Your task to perform on an android device: Open Maps and search for coffee Image 0: 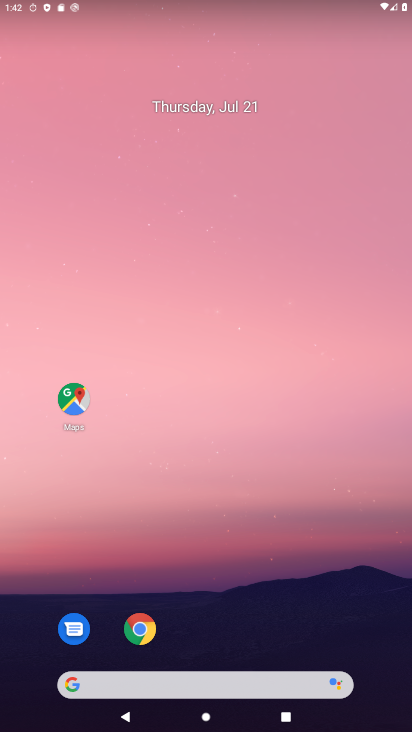
Step 0: click (223, 47)
Your task to perform on an android device: Open Maps and search for coffee Image 1: 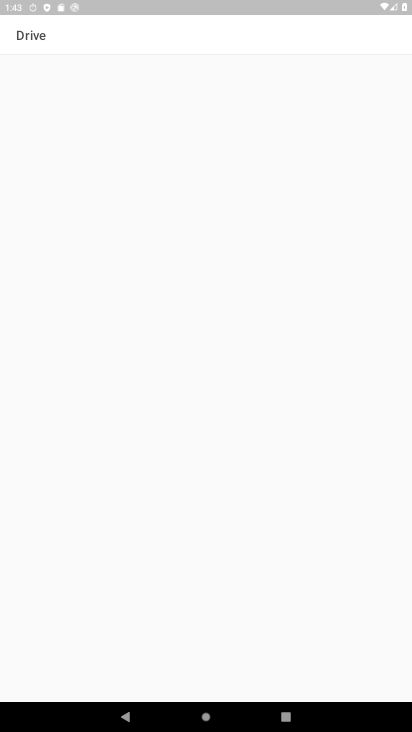
Step 1: drag from (13, 706) to (129, 241)
Your task to perform on an android device: Open Maps and search for coffee Image 2: 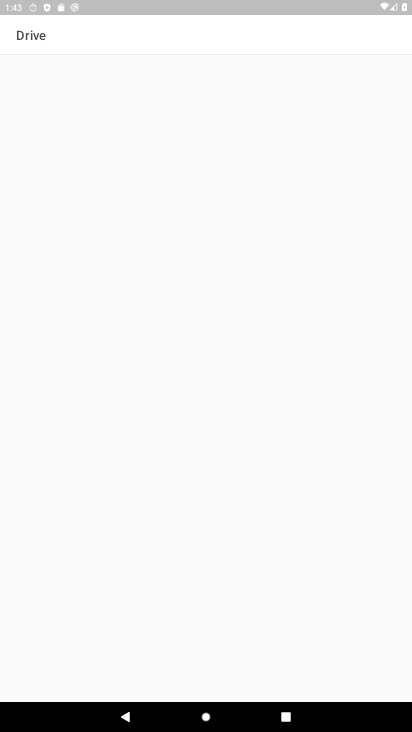
Step 2: press home button
Your task to perform on an android device: Open Maps and search for coffee Image 3: 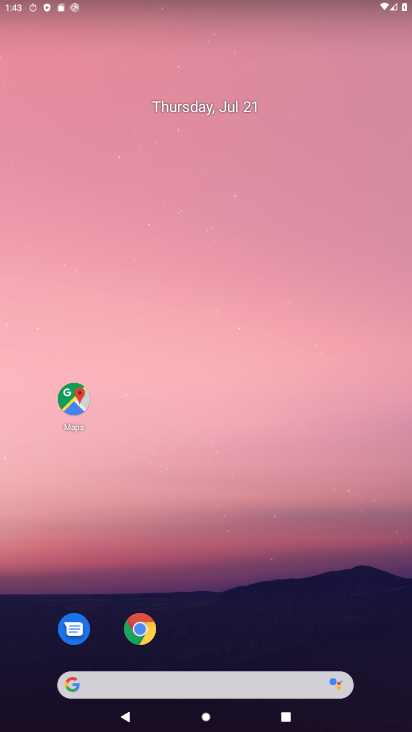
Step 3: click (66, 400)
Your task to perform on an android device: Open Maps and search for coffee Image 4: 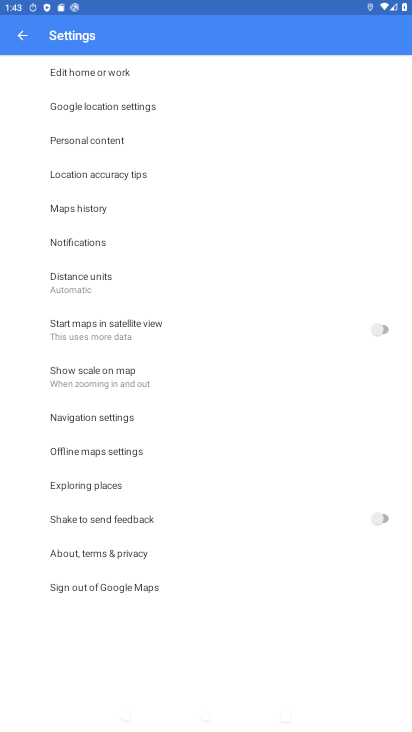
Step 4: click (16, 43)
Your task to perform on an android device: Open Maps and search for coffee Image 5: 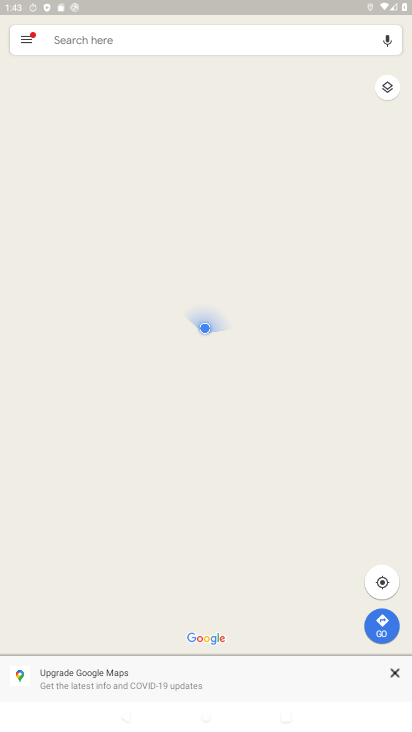
Step 5: click (78, 42)
Your task to perform on an android device: Open Maps and search for coffee Image 6: 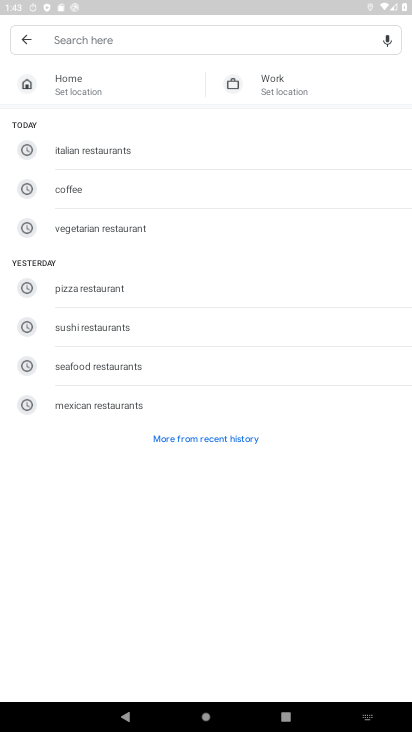
Step 6: click (71, 187)
Your task to perform on an android device: Open Maps and search for coffee Image 7: 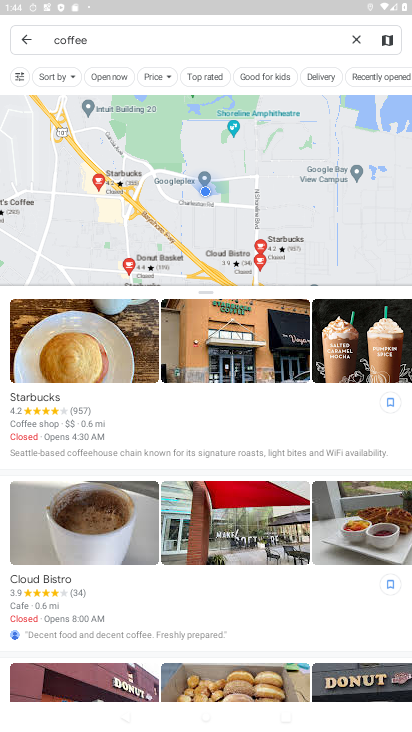
Step 7: task complete